Your task to perform on an android device: Go to Maps Image 0: 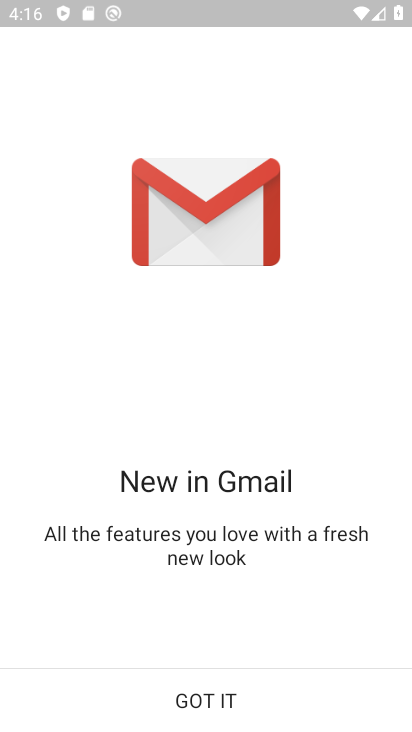
Step 0: press home button
Your task to perform on an android device: Go to Maps Image 1: 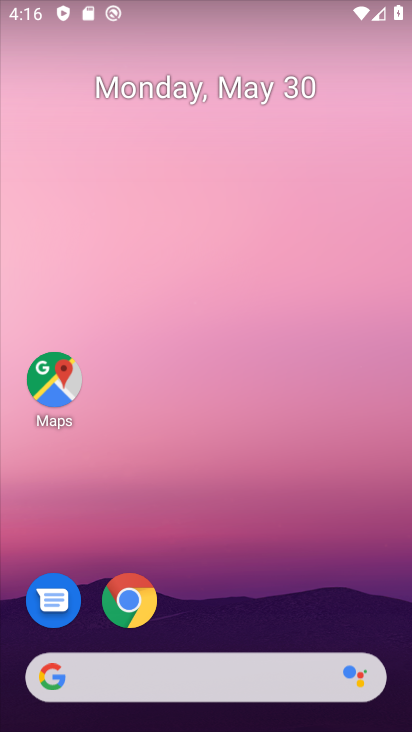
Step 1: click (56, 379)
Your task to perform on an android device: Go to Maps Image 2: 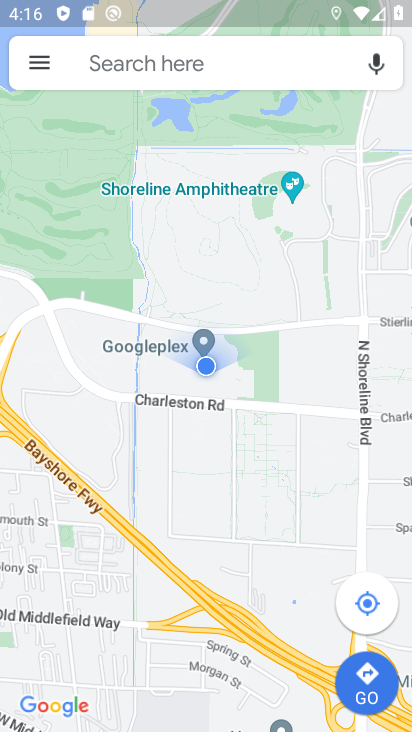
Step 2: task complete